Your task to perform on an android device: What's on my calendar tomorrow? Image 0: 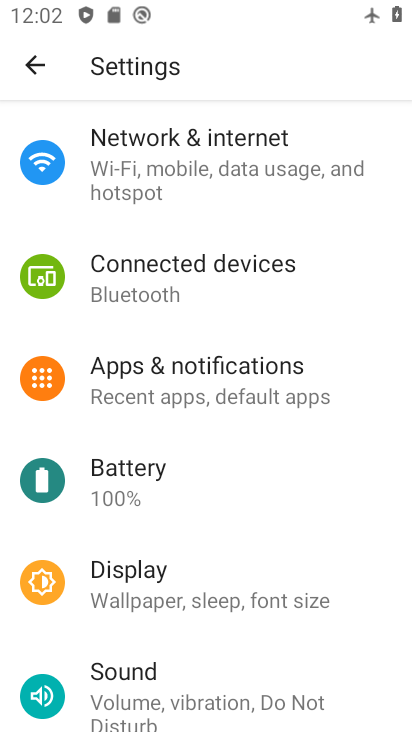
Step 0: press home button
Your task to perform on an android device: What's on my calendar tomorrow? Image 1: 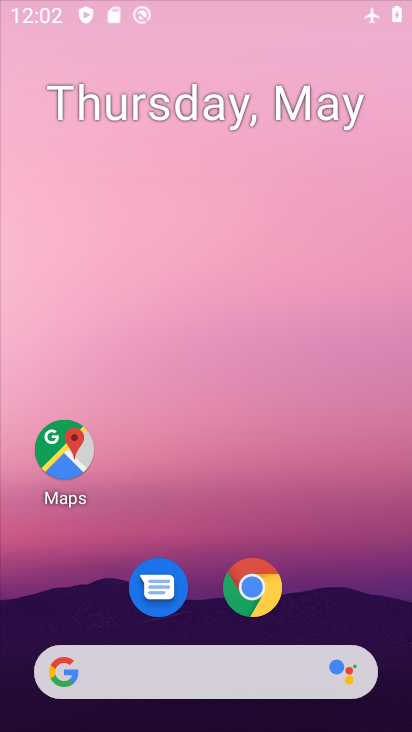
Step 1: drag from (206, 673) to (176, 12)
Your task to perform on an android device: What's on my calendar tomorrow? Image 2: 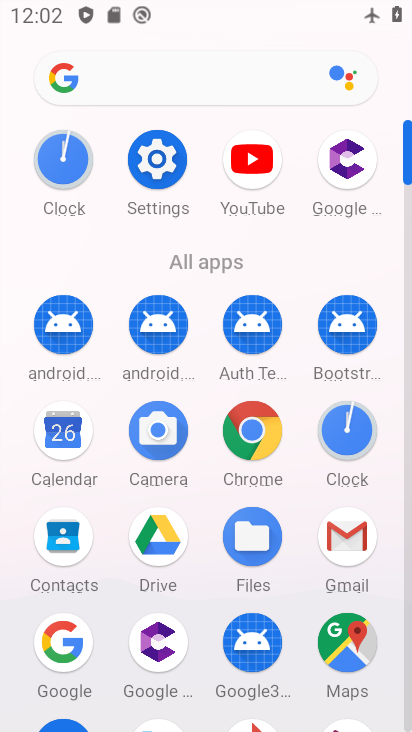
Step 2: click (69, 436)
Your task to perform on an android device: What's on my calendar tomorrow? Image 3: 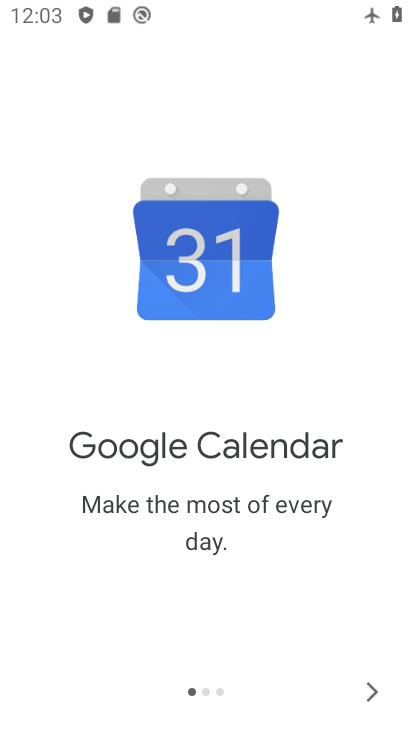
Step 3: click (382, 691)
Your task to perform on an android device: What's on my calendar tomorrow? Image 4: 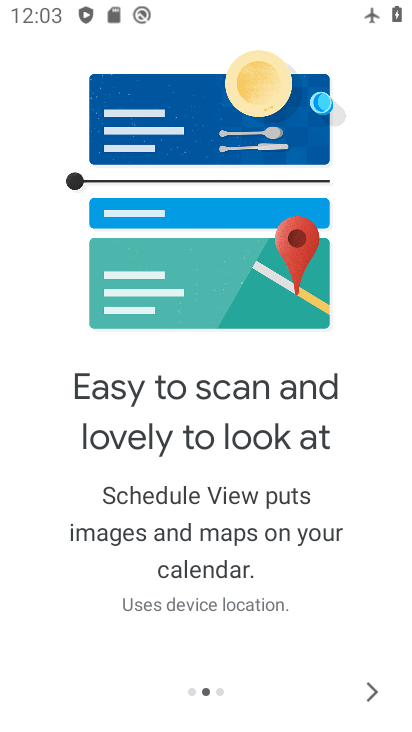
Step 4: click (382, 691)
Your task to perform on an android device: What's on my calendar tomorrow? Image 5: 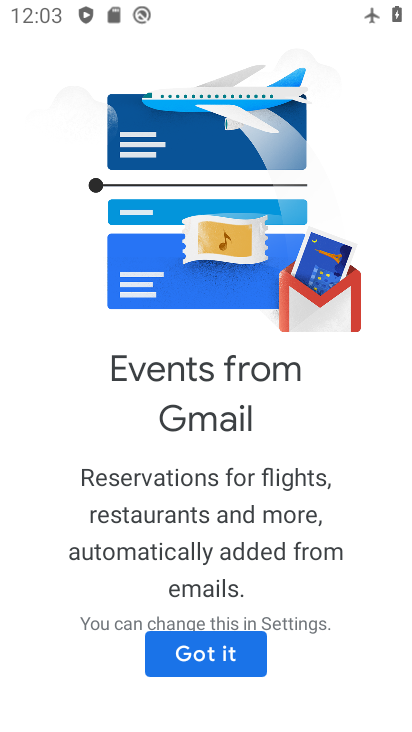
Step 5: click (213, 653)
Your task to perform on an android device: What's on my calendar tomorrow? Image 6: 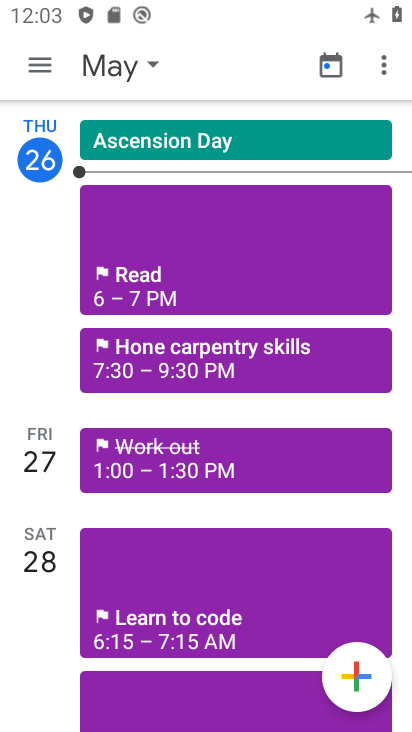
Step 6: click (147, 46)
Your task to perform on an android device: What's on my calendar tomorrow? Image 7: 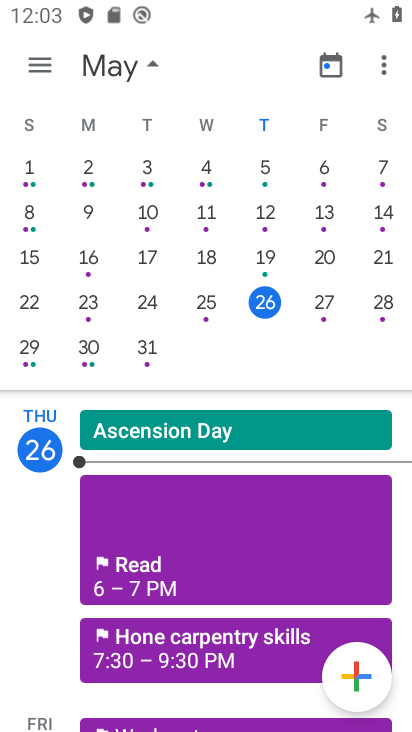
Step 7: click (333, 300)
Your task to perform on an android device: What's on my calendar tomorrow? Image 8: 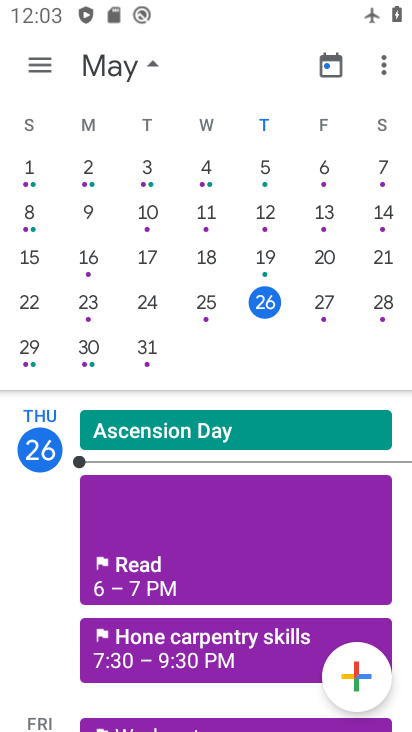
Step 8: click (317, 301)
Your task to perform on an android device: What's on my calendar tomorrow? Image 9: 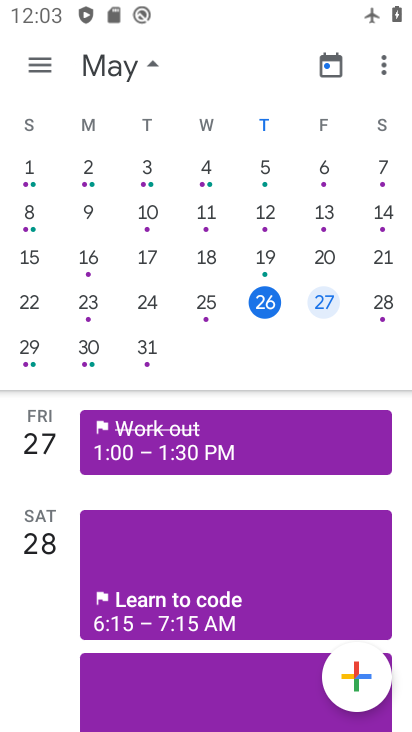
Step 9: task complete